Your task to perform on an android device: remove spam from my inbox in the gmail app Image 0: 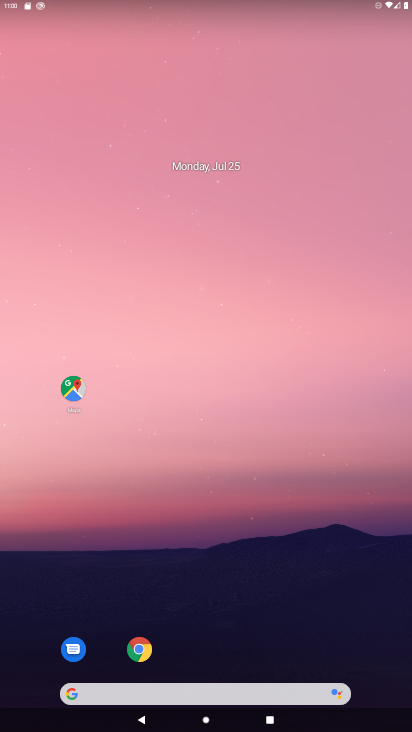
Step 0: drag from (383, 675) to (352, 203)
Your task to perform on an android device: remove spam from my inbox in the gmail app Image 1: 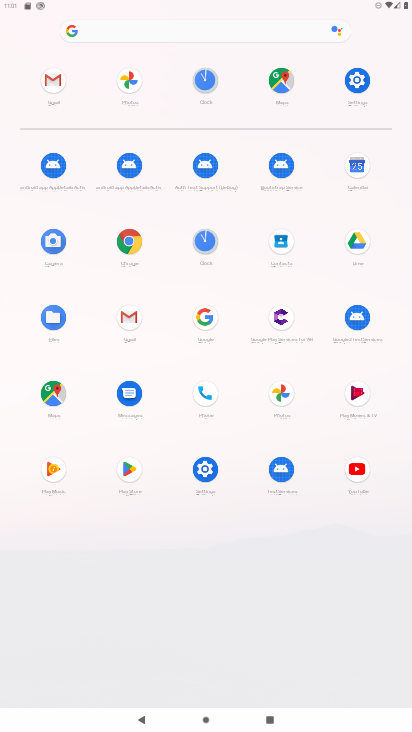
Step 1: click (127, 318)
Your task to perform on an android device: remove spam from my inbox in the gmail app Image 2: 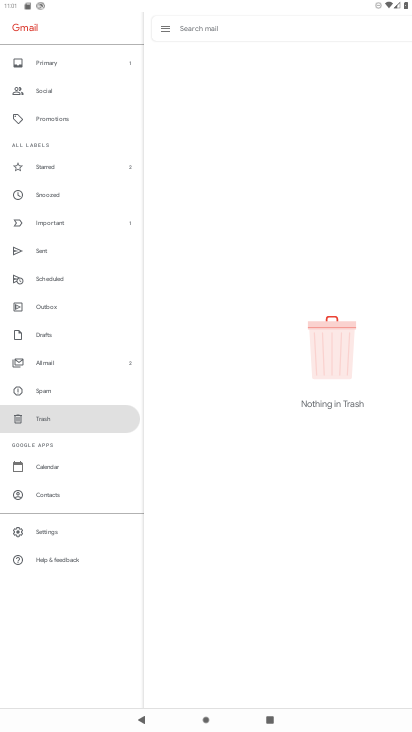
Step 2: click (44, 388)
Your task to perform on an android device: remove spam from my inbox in the gmail app Image 3: 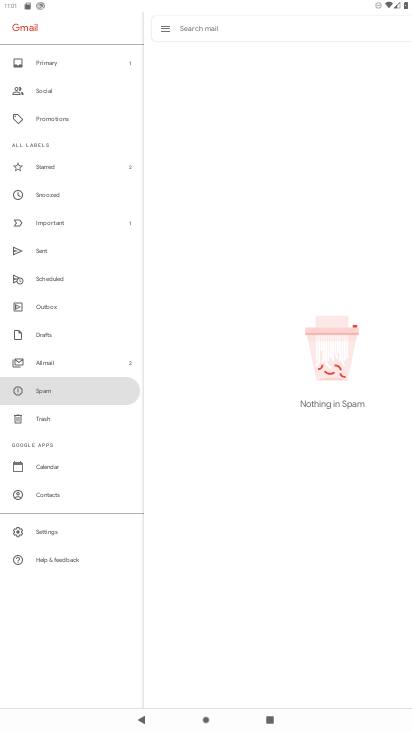
Step 3: task complete